Your task to perform on an android device: Open Android settings Image 0: 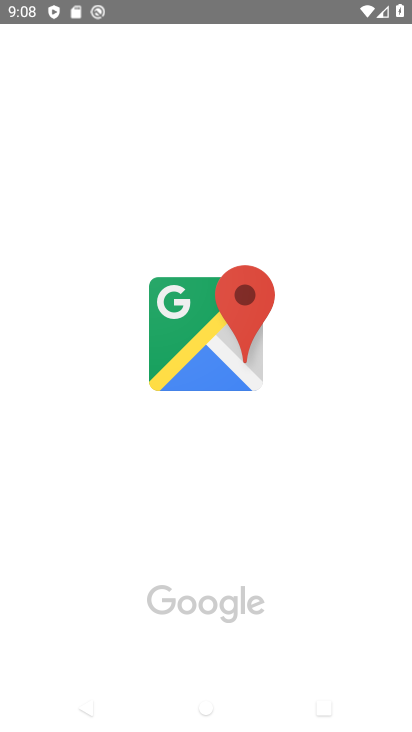
Step 0: drag from (291, 0) to (292, 43)
Your task to perform on an android device: Open Android settings Image 1: 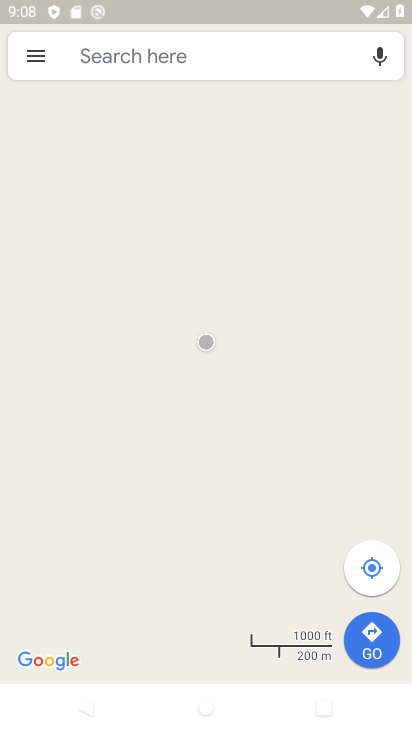
Step 1: press home button
Your task to perform on an android device: Open Android settings Image 2: 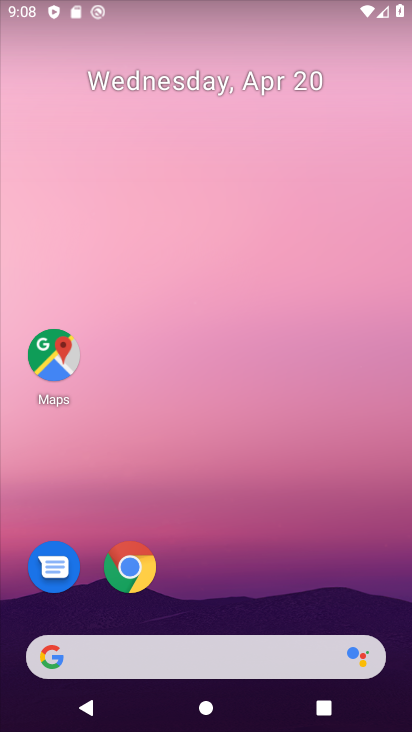
Step 2: drag from (325, 569) to (334, 143)
Your task to perform on an android device: Open Android settings Image 3: 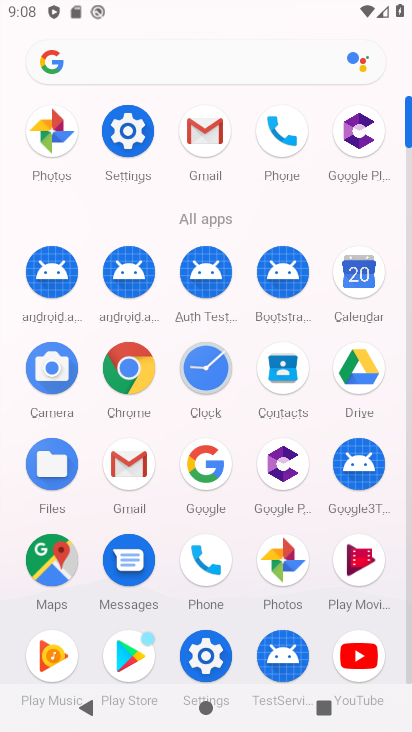
Step 3: click (135, 150)
Your task to perform on an android device: Open Android settings Image 4: 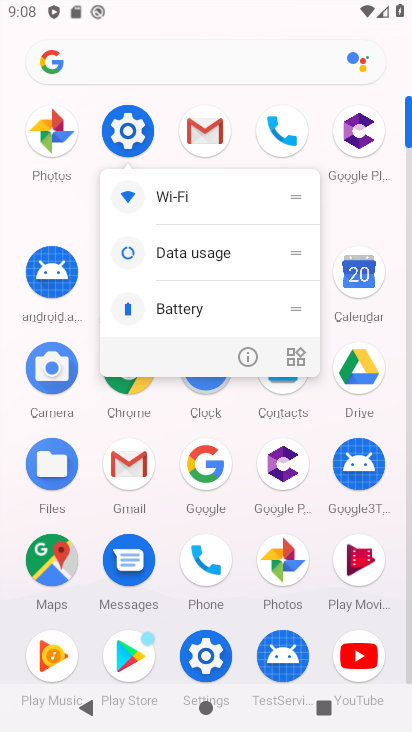
Step 4: click (133, 149)
Your task to perform on an android device: Open Android settings Image 5: 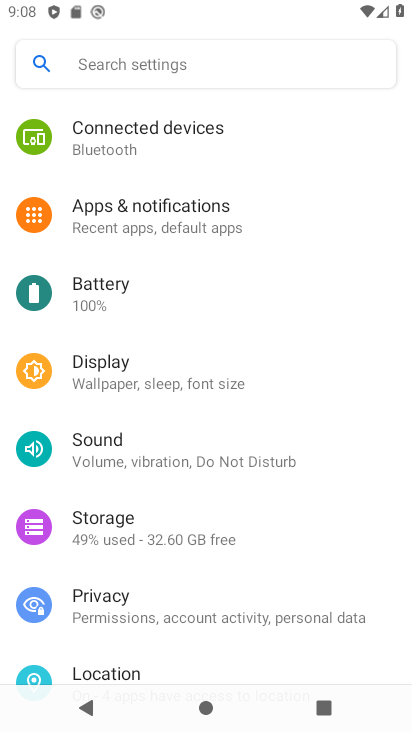
Step 5: drag from (366, 251) to (362, 410)
Your task to perform on an android device: Open Android settings Image 6: 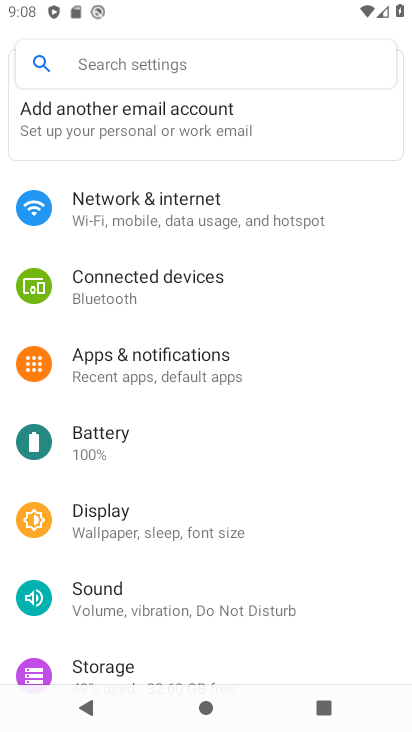
Step 6: drag from (361, 496) to (366, 322)
Your task to perform on an android device: Open Android settings Image 7: 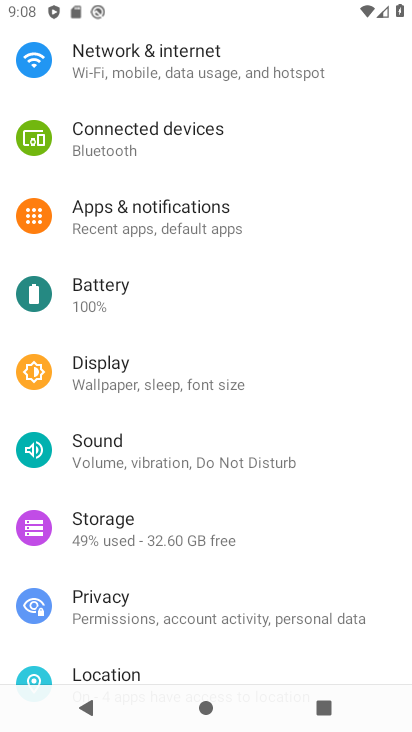
Step 7: drag from (357, 509) to (358, 357)
Your task to perform on an android device: Open Android settings Image 8: 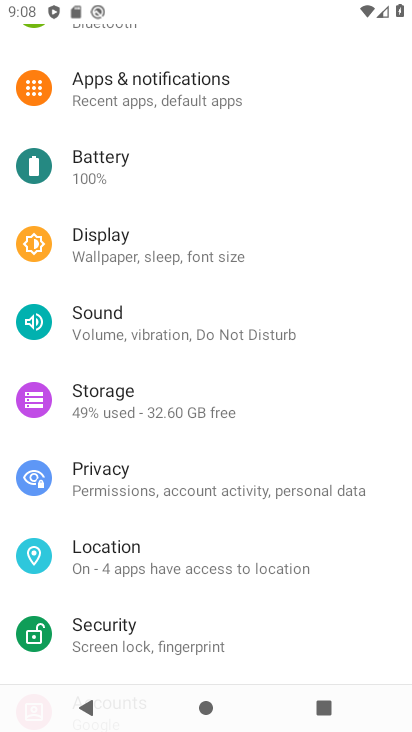
Step 8: drag from (364, 575) to (370, 370)
Your task to perform on an android device: Open Android settings Image 9: 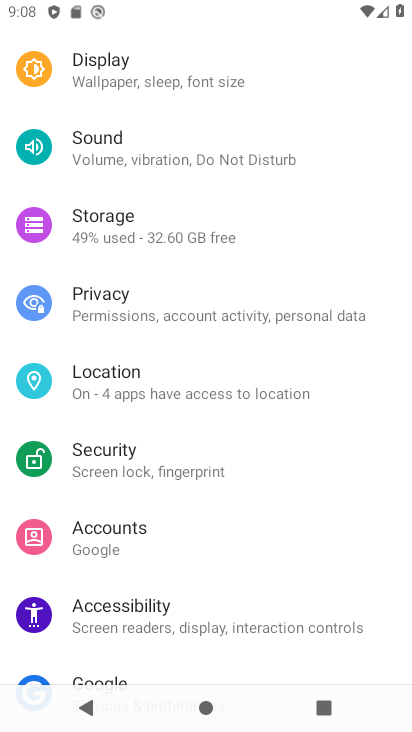
Step 9: drag from (379, 524) to (379, 357)
Your task to perform on an android device: Open Android settings Image 10: 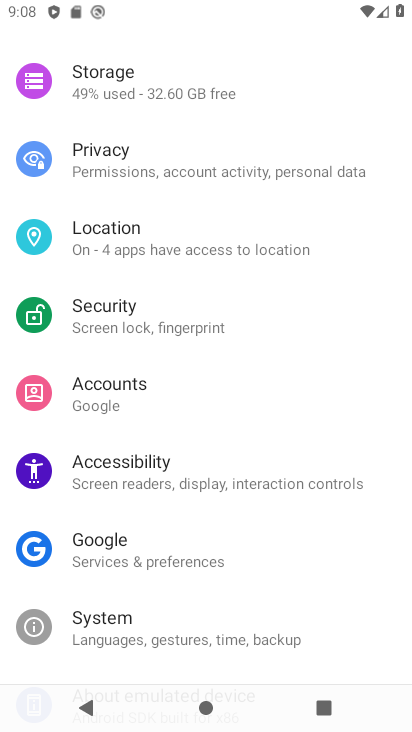
Step 10: drag from (376, 586) to (378, 371)
Your task to perform on an android device: Open Android settings Image 11: 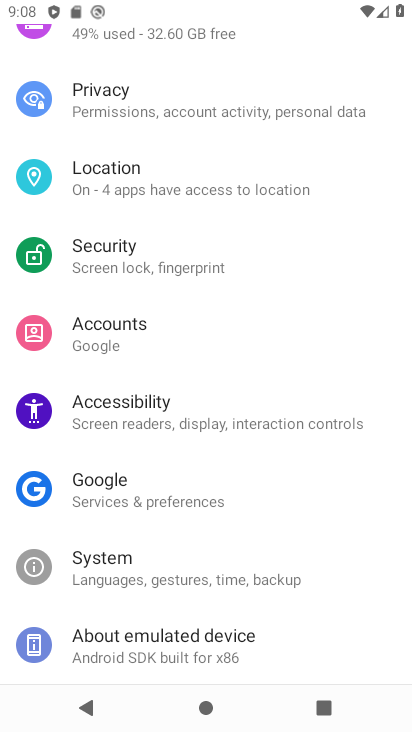
Step 11: click (294, 588)
Your task to perform on an android device: Open Android settings Image 12: 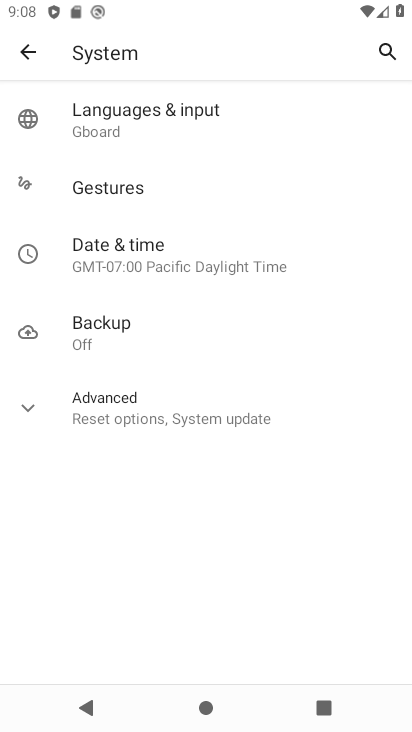
Step 12: click (229, 417)
Your task to perform on an android device: Open Android settings Image 13: 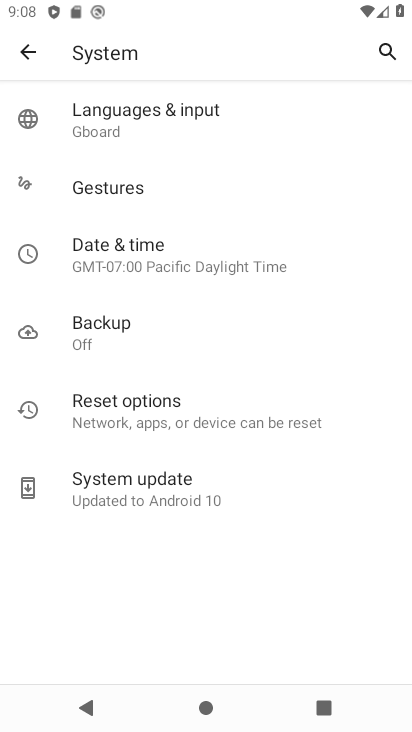
Step 13: task complete